Your task to perform on an android device: turn off smart reply in the gmail app Image 0: 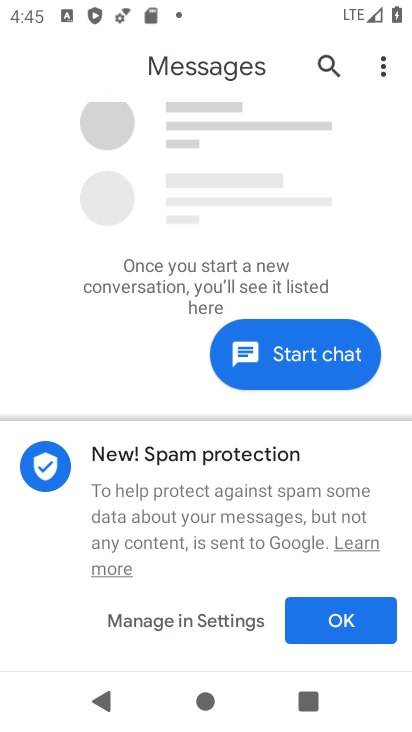
Step 0: press home button
Your task to perform on an android device: turn off smart reply in the gmail app Image 1: 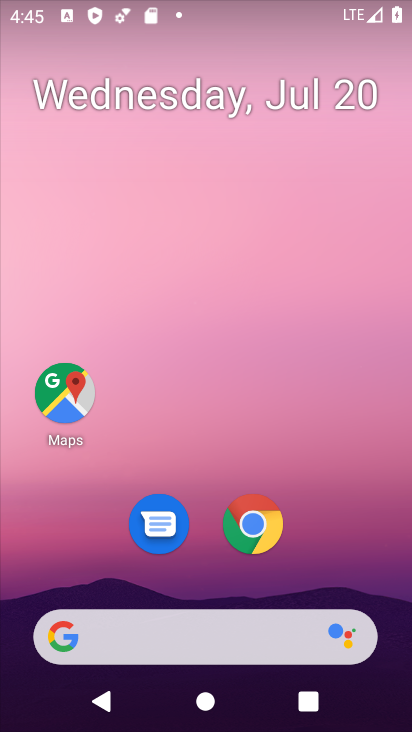
Step 1: drag from (338, 544) to (328, 33)
Your task to perform on an android device: turn off smart reply in the gmail app Image 2: 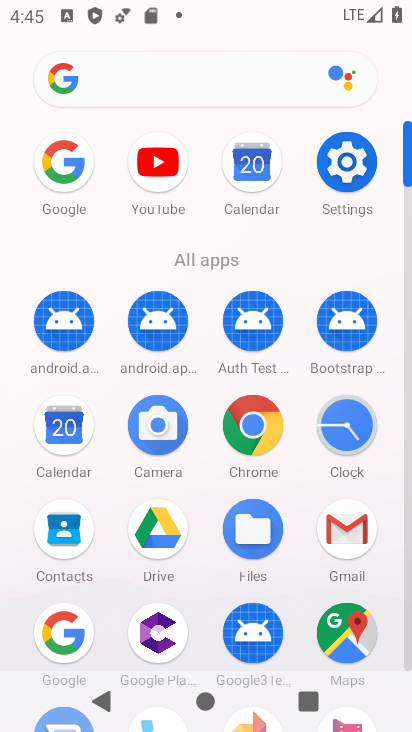
Step 2: click (326, 520)
Your task to perform on an android device: turn off smart reply in the gmail app Image 3: 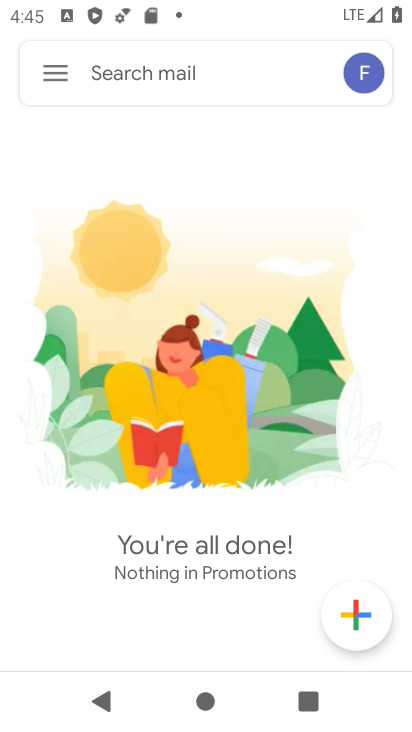
Step 3: click (60, 73)
Your task to perform on an android device: turn off smart reply in the gmail app Image 4: 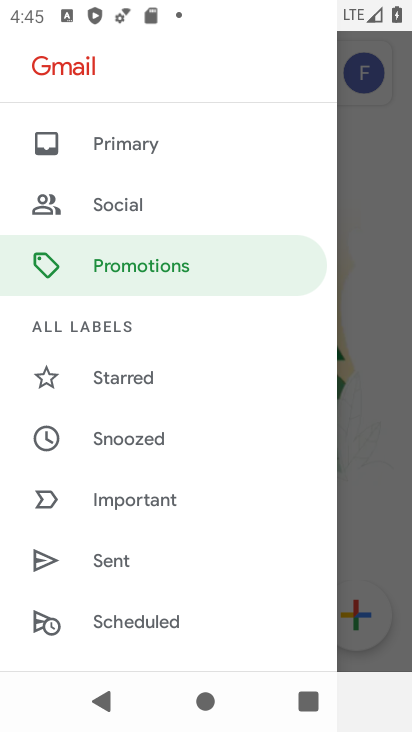
Step 4: drag from (143, 513) to (287, 5)
Your task to perform on an android device: turn off smart reply in the gmail app Image 5: 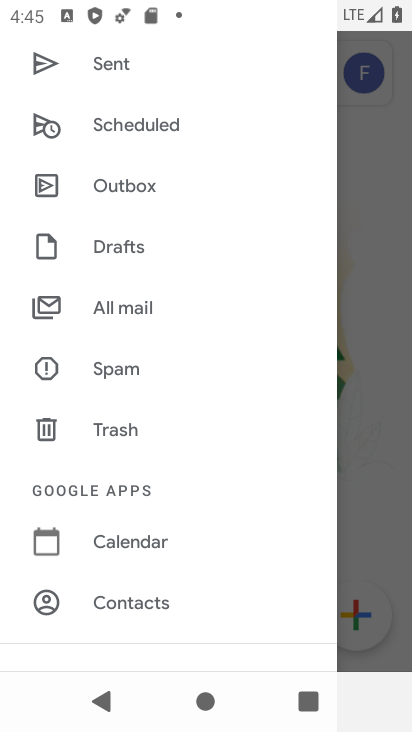
Step 5: drag from (208, 418) to (235, 161)
Your task to perform on an android device: turn off smart reply in the gmail app Image 6: 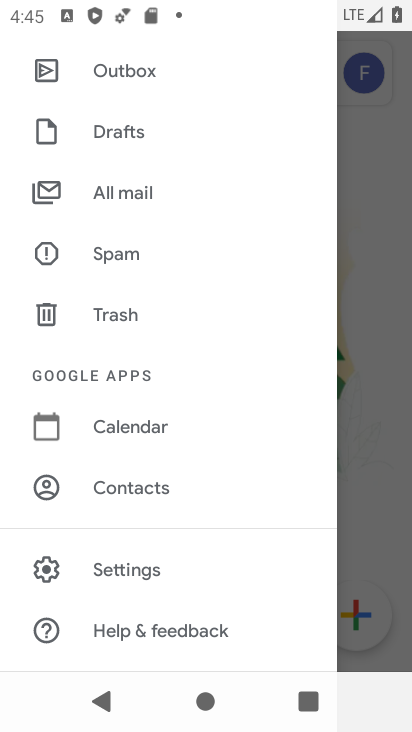
Step 6: click (135, 567)
Your task to perform on an android device: turn off smart reply in the gmail app Image 7: 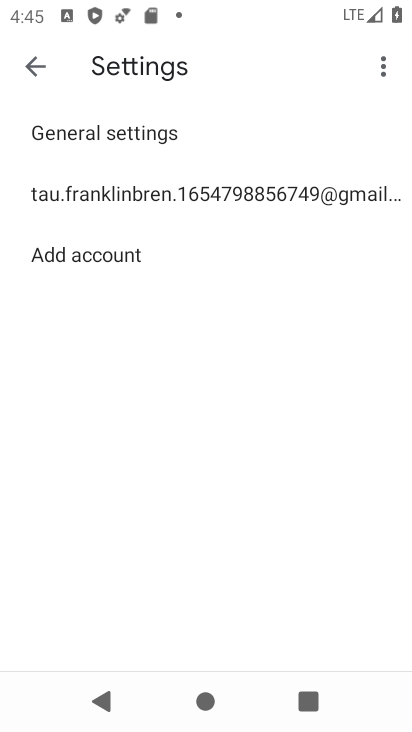
Step 7: click (292, 192)
Your task to perform on an android device: turn off smart reply in the gmail app Image 8: 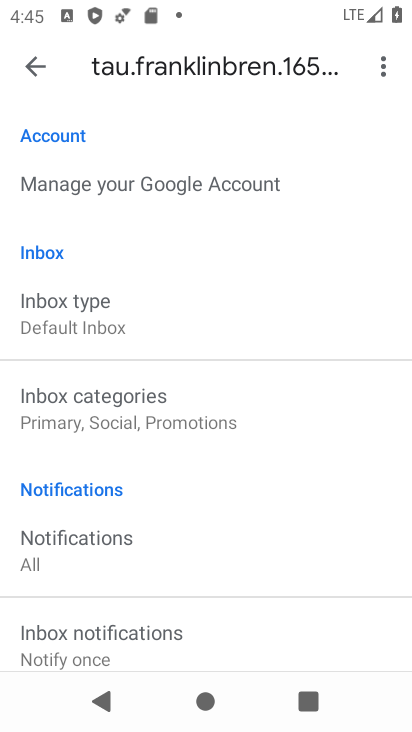
Step 8: drag from (210, 611) to (282, 40)
Your task to perform on an android device: turn off smart reply in the gmail app Image 9: 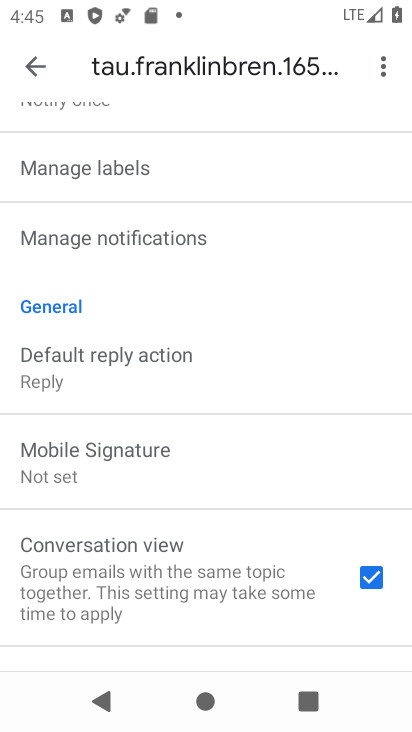
Step 9: drag from (245, 551) to (252, 199)
Your task to perform on an android device: turn off smart reply in the gmail app Image 10: 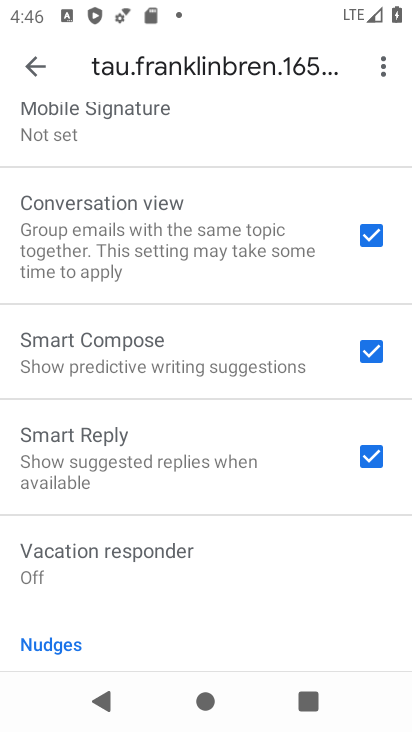
Step 10: click (370, 457)
Your task to perform on an android device: turn off smart reply in the gmail app Image 11: 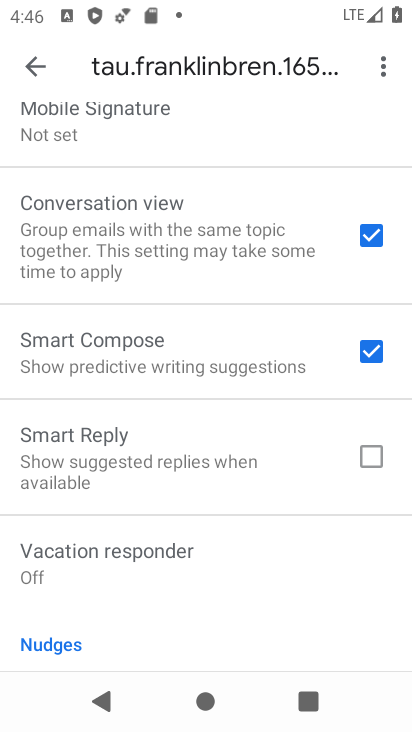
Step 11: task complete